Your task to perform on an android device: Toggle the flashlight Image 0: 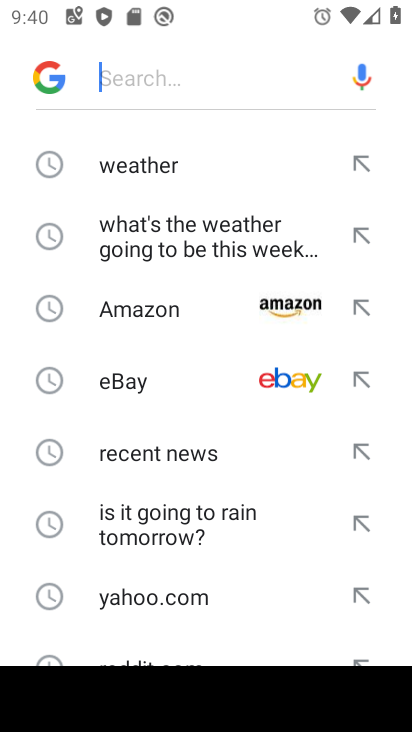
Step 0: press back button
Your task to perform on an android device: Toggle the flashlight Image 1: 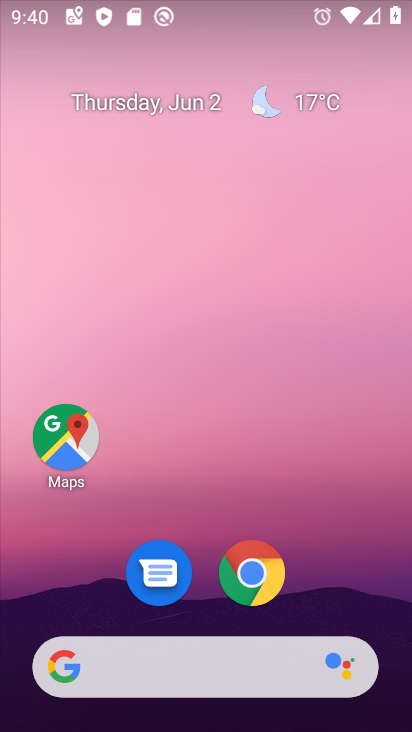
Step 1: drag from (333, 496) to (216, 80)
Your task to perform on an android device: Toggle the flashlight Image 2: 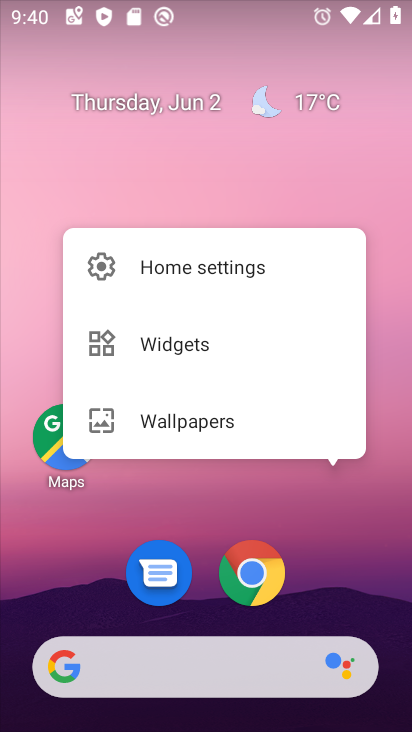
Step 2: drag from (315, 560) to (293, 34)
Your task to perform on an android device: Toggle the flashlight Image 3: 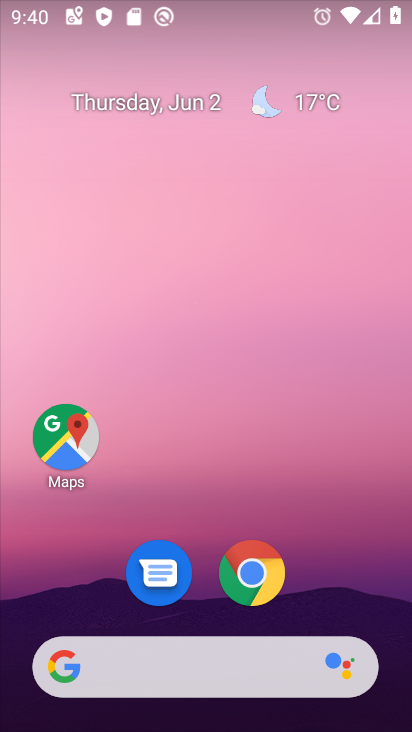
Step 3: drag from (302, 466) to (244, 30)
Your task to perform on an android device: Toggle the flashlight Image 4: 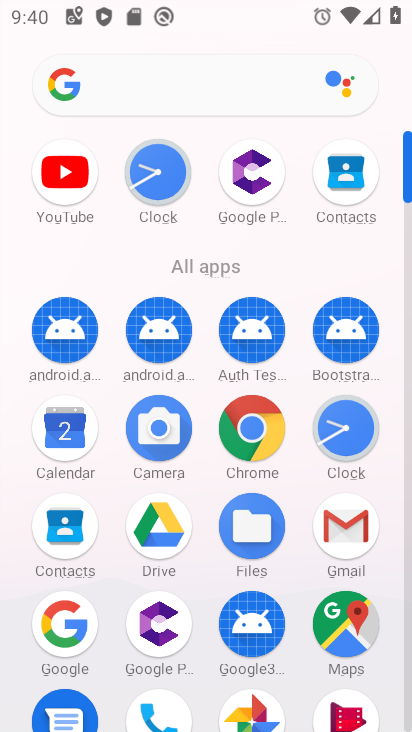
Step 4: drag from (297, 259) to (300, 131)
Your task to perform on an android device: Toggle the flashlight Image 5: 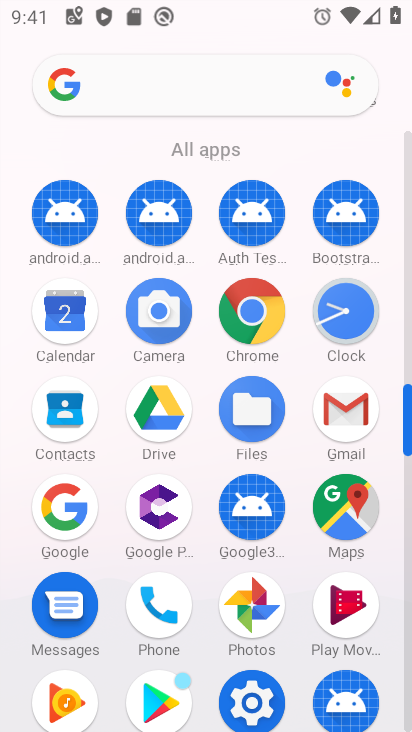
Step 5: drag from (310, 82) to (304, 12)
Your task to perform on an android device: Toggle the flashlight Image 6: 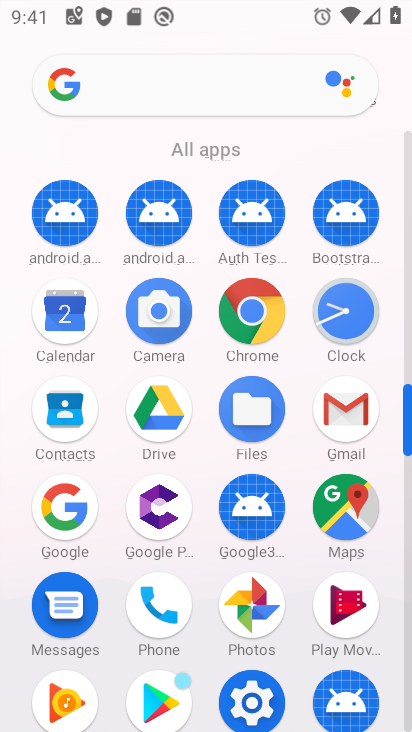
Step 6: drag from (299, 467) to (301, 243)
Your task to perform on an android device: Toggle the flashlight Image 7: 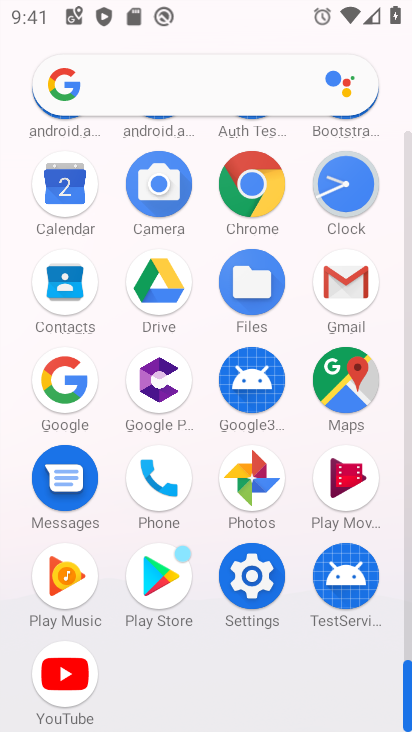
Step 7: click (255, 574)
Your task to perform on an android device: Toggle the flashlight Image 8: 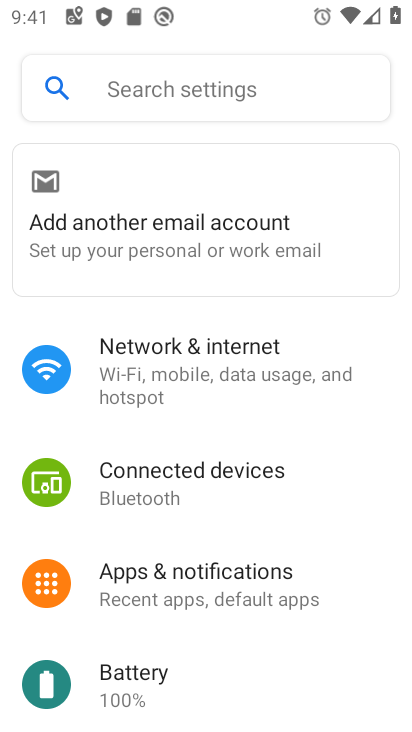
Step 8: drag from (216, 621) to (210, 499)
Your task to perform on an android device: Toggle the flashlight Image 9: 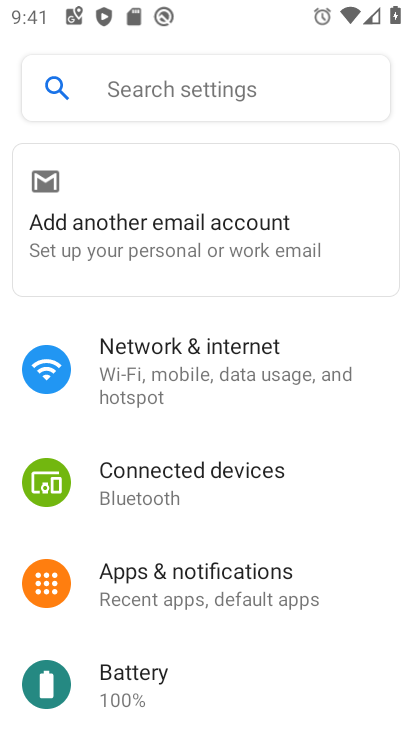
Step 9: drag from (164, 545) to (187, 405)
Your task to perform on an android device: Toggle the flashlight Image 10: 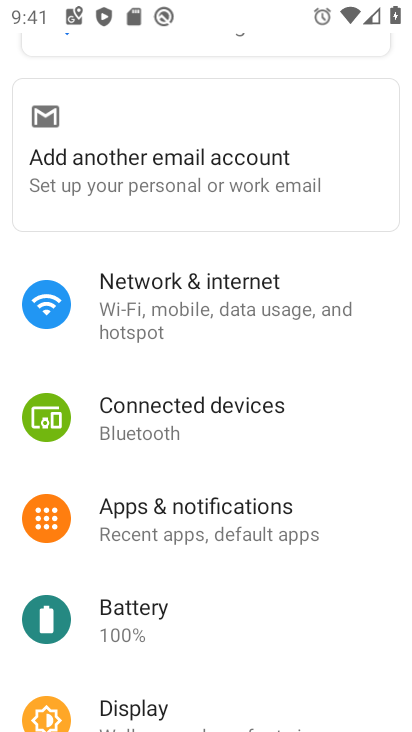
Step 10: drag from (204, 552) to (228, 461)
Your task to perform on an android device: Toggle the flashlight Image 11: 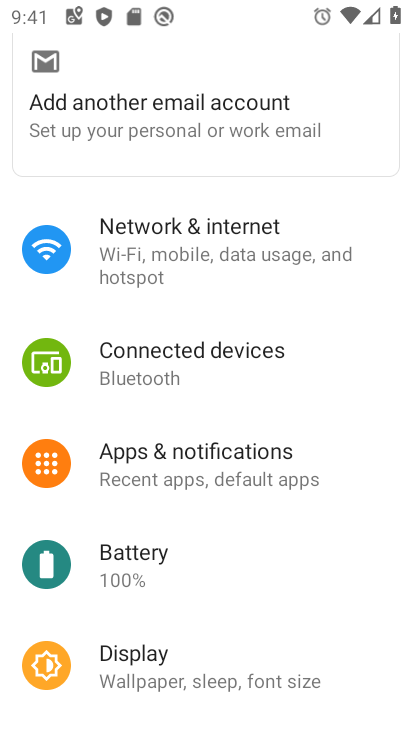
Step 11: drag from (209, 541) to (262, 389)
Your task to perform on an android device: Toggle the flashlight Image 12: 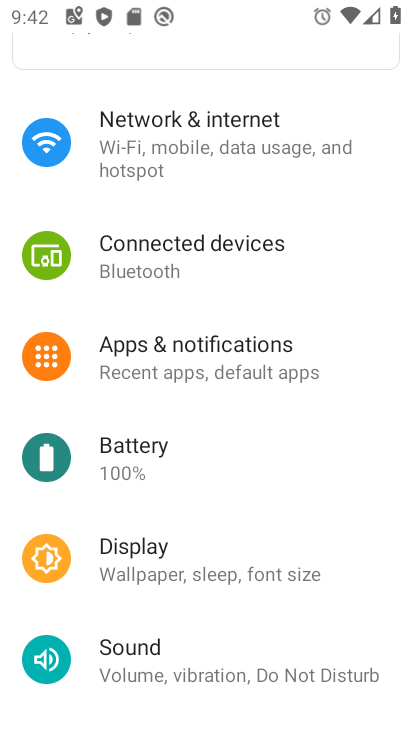
Step 12: drag from (192, 607) to (246, 487)
Your task to perform on an android device: Toggle the flashlight Image 13: 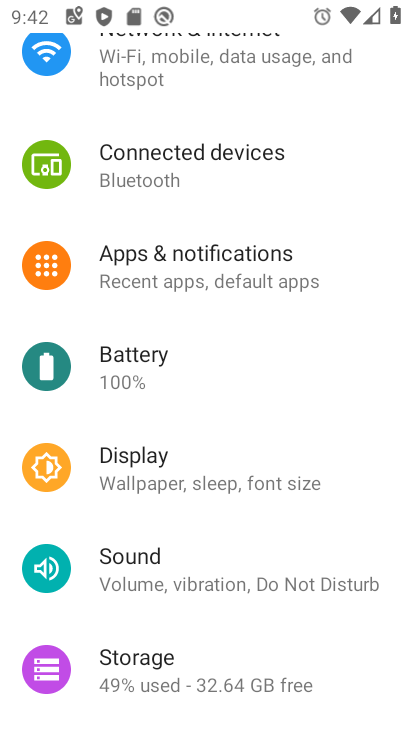
Step 13: drag from (222, 535) to (256, 398)
Your task to perform on an android device: Toggle the flashlight Image 14: 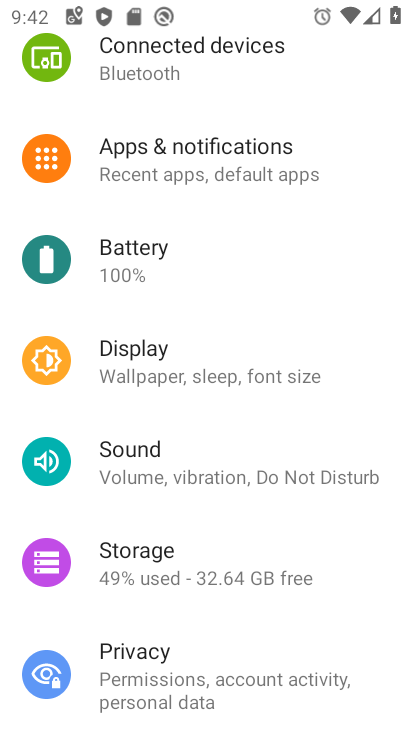
Step 14: drag from (217, 507) to (271, 383)
Your task to perform on an android device: Toggle the flashlight Image 15: 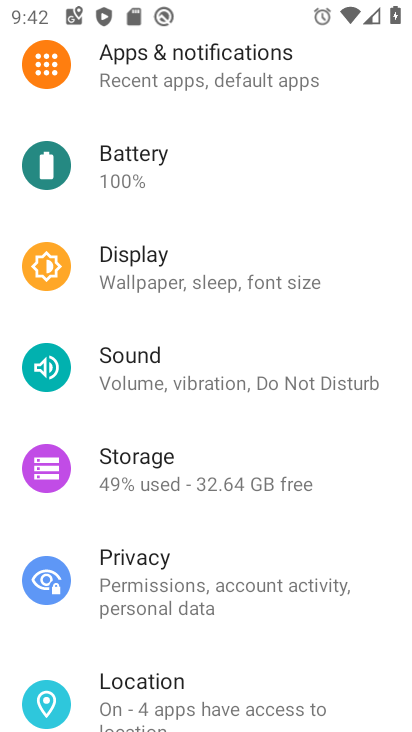
Step 15: drag from (203, 521) to (260, 410)
Your task to perform on an android device: Toggle the flashlight Image 16: 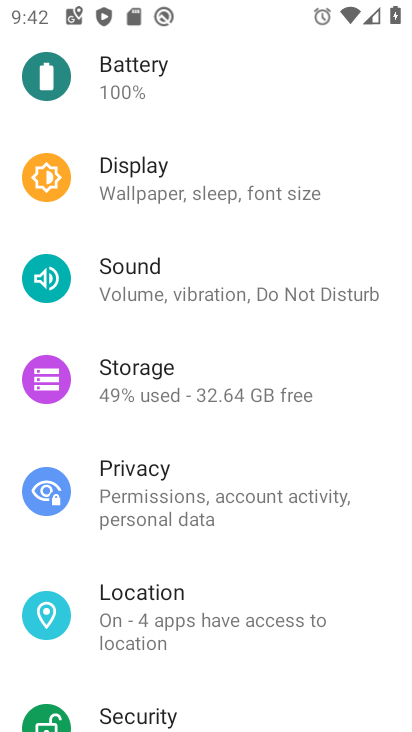
Step 16: drag from (222, 555) to (273, 384)
Your task to perform on an android device: Toggle the flashlight Image 17: 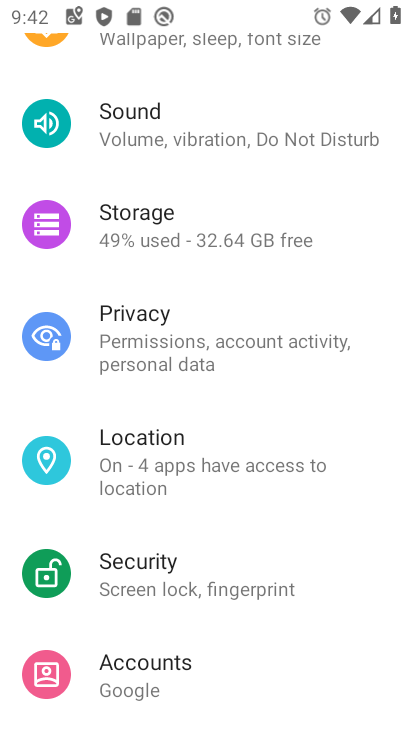
Step 17: drag from (196, 616) to (267, 466)
Your task to perform on an android device: Toggle the flashlight Image 18: 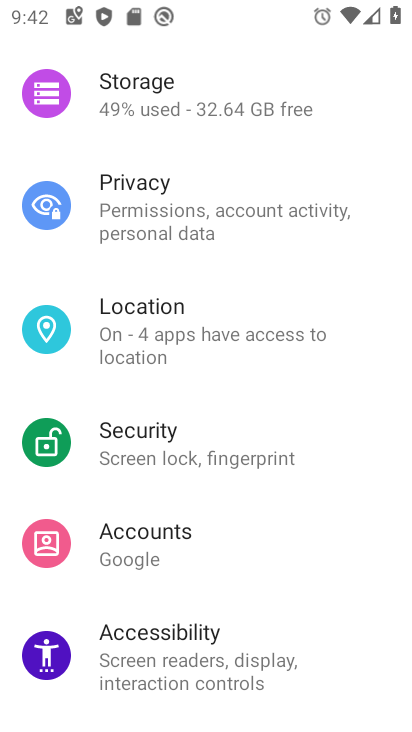
Step 18: click (192, 646)
Your task to perform on an android device: Toggle the flashlight Image 19: 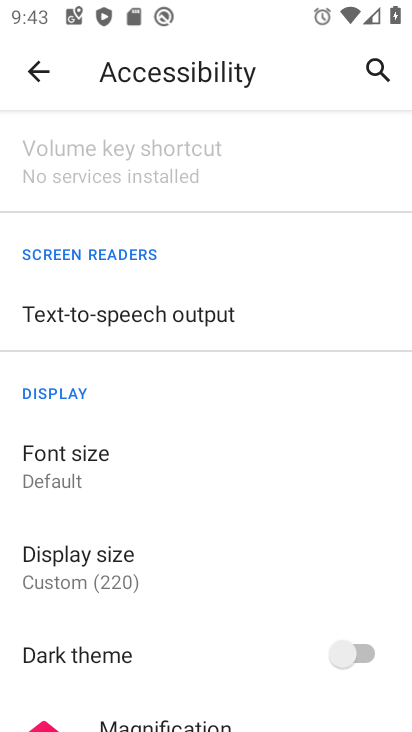
Step 19: drag from (160, 614) to (189, 424)
Your task to perform on an android device: Toggle the flashlight Image 20: 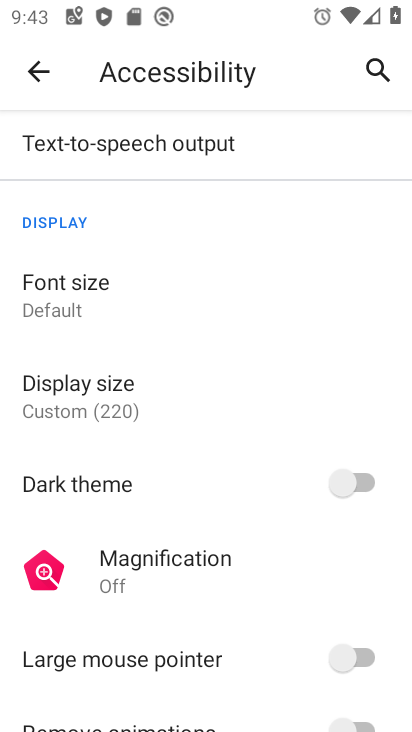
Step 20: drag from (177, 570) to (210, 385)
Your task to perform on an android device: Toggle the flashlight Image 21: 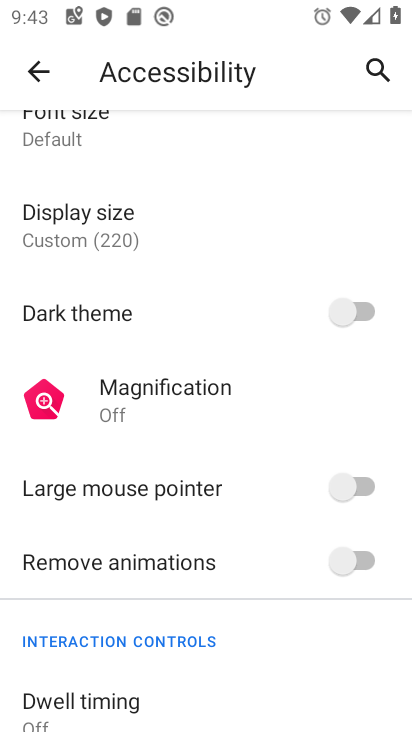
Step 21: drag from (177, 561) to (252, 318)
Your task to perform on an android device: Toggle the flashlight Image 22: 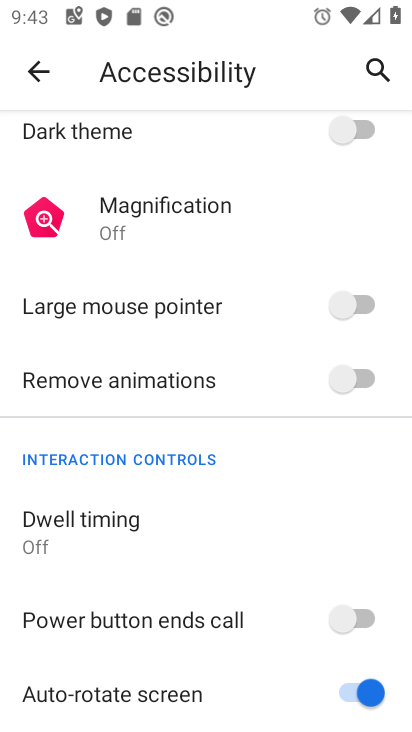
Step 22: drag from (255, 449) to (311, 253)
Your task to perform on an android device: Toggle the flashlight Image 23: 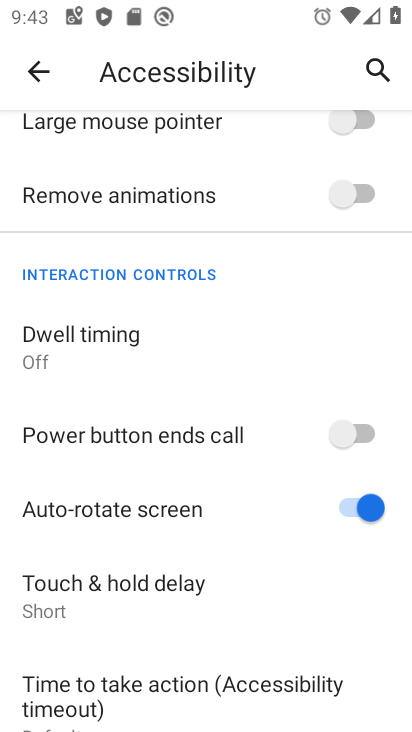
Step 23: press back button
Your task to perform on an android device: Toggle the flashlight Image 24: 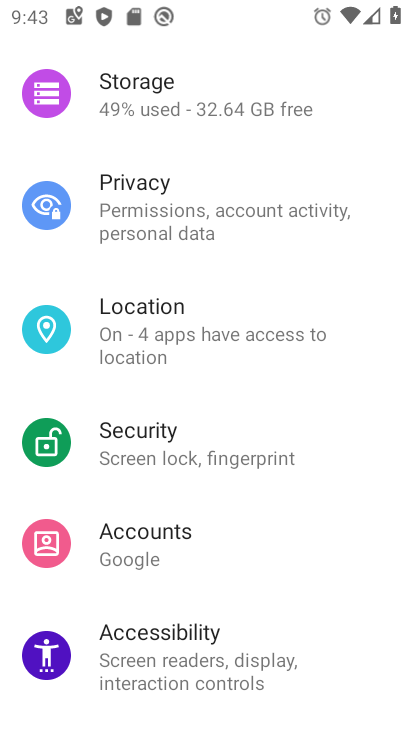
Step 24: drag from (228, 271) to (237, 432)
Your task to perform on an android device: Toggle the flashlight Image 25: 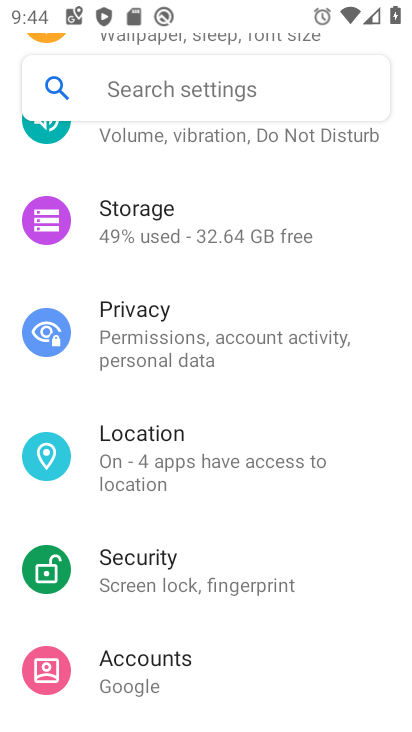
Step 25: drag from (242, 182) to (271, 365)
Your task to perform on an android device: Toggle the flashlight Image 26: 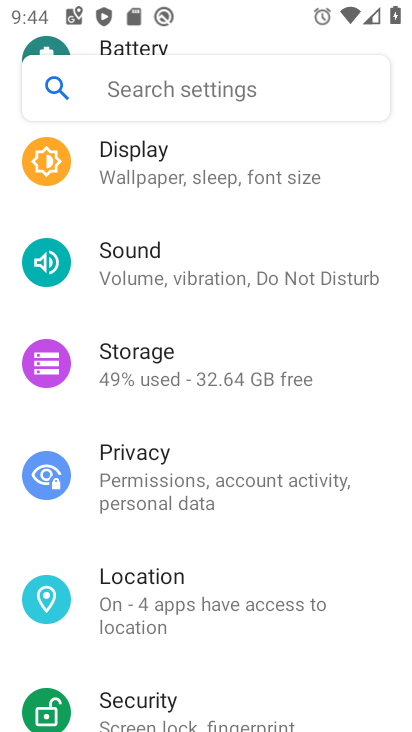
Step 26: drag from (198, 209) to (222, 411)
Your task to perform on an android device: Toggle the flashlight Image 27: 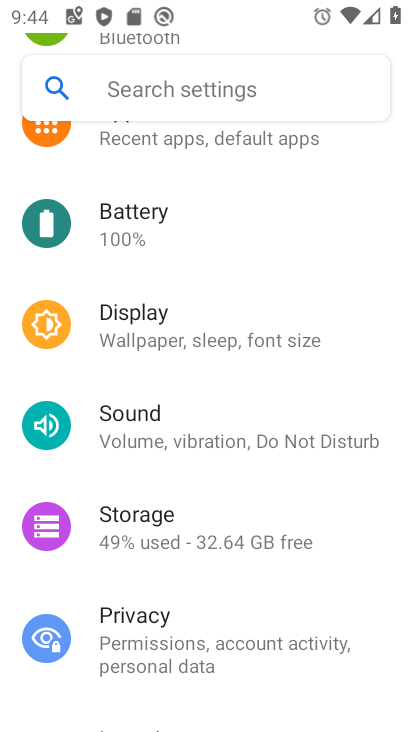
Step 27: drag from (220, 303) to (256, 423)
Your task to perform on an android device: Toggle the flashlight Image 28: 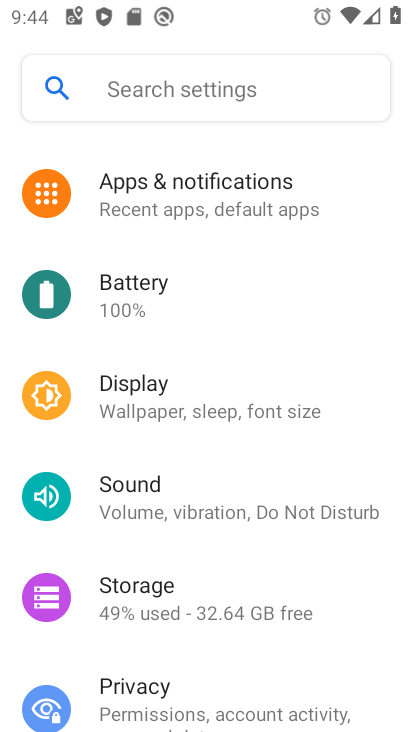
Step 28: click (217, 420)
Your task to perform on an android device: Toggle the flashlight Image 29: 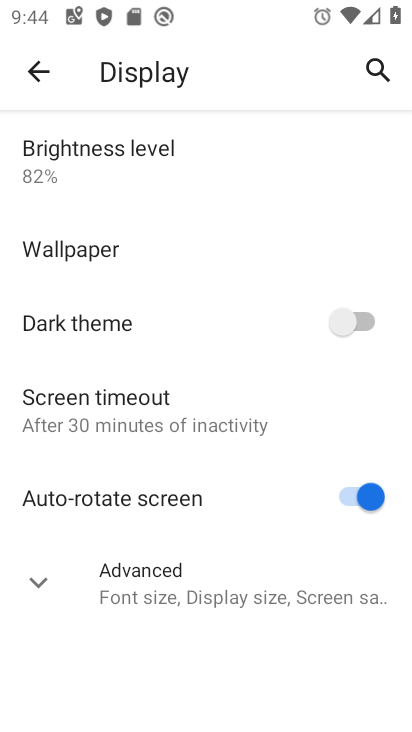
Step 29: task complete